Your task to perform on an android device: Open a new incognito tab in Chrome Image 0: 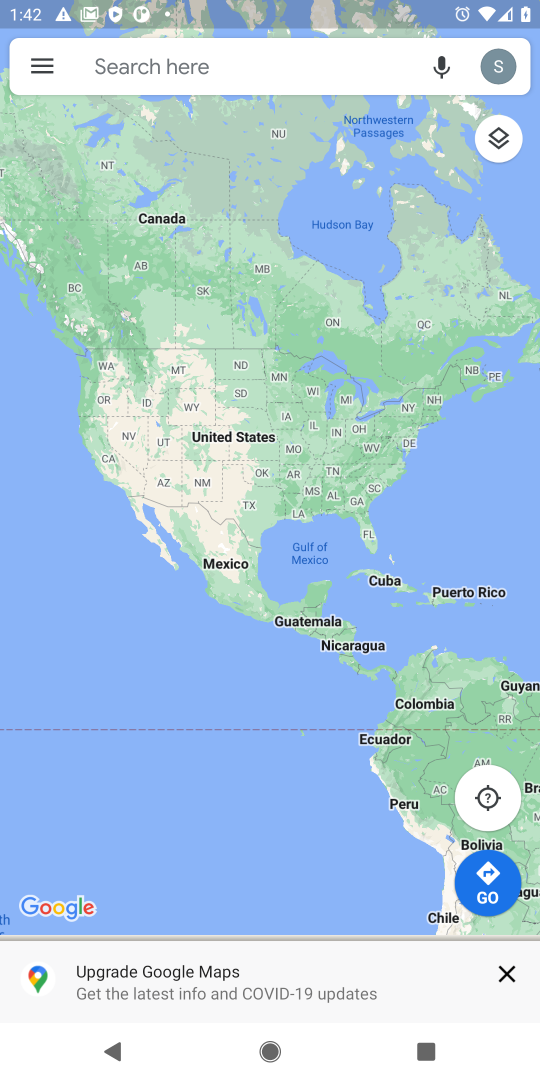
Step 0: press home button
Your task to perform on an android device: Open a new incognito tab in Chrome Image 1: 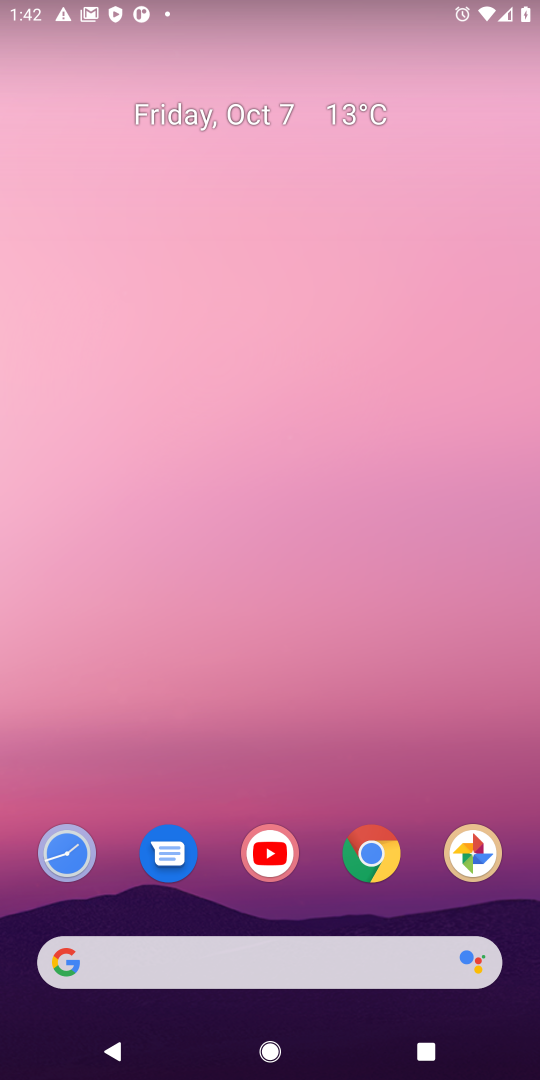
Step 1: click (393, 852)
Your task to perform on an android device: Open a new incognito tab in Chrome Image 2: 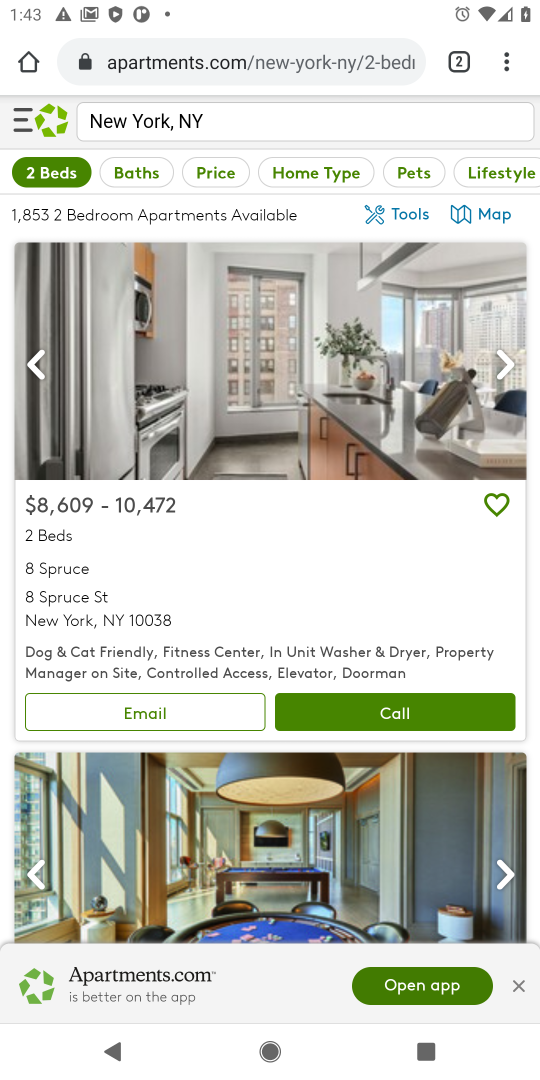
Step 2: click (449, 54)
Your task to perform on an android device: Open a new incognito tab in Chrome Image 3: 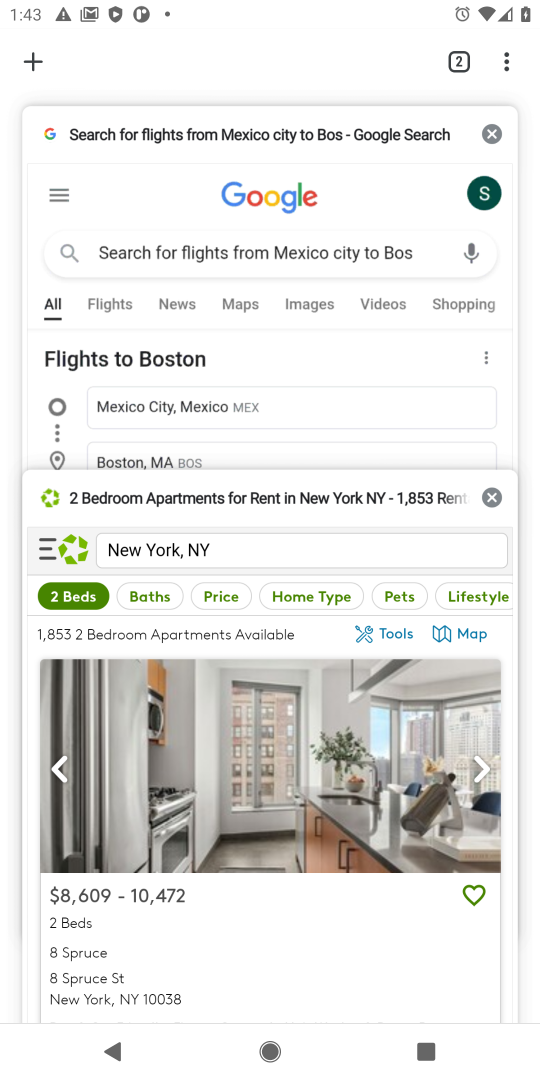
Step 3: click (502, 67)
Your task to perform on an android device: Open a new incognito tab in Chrome Image 4: 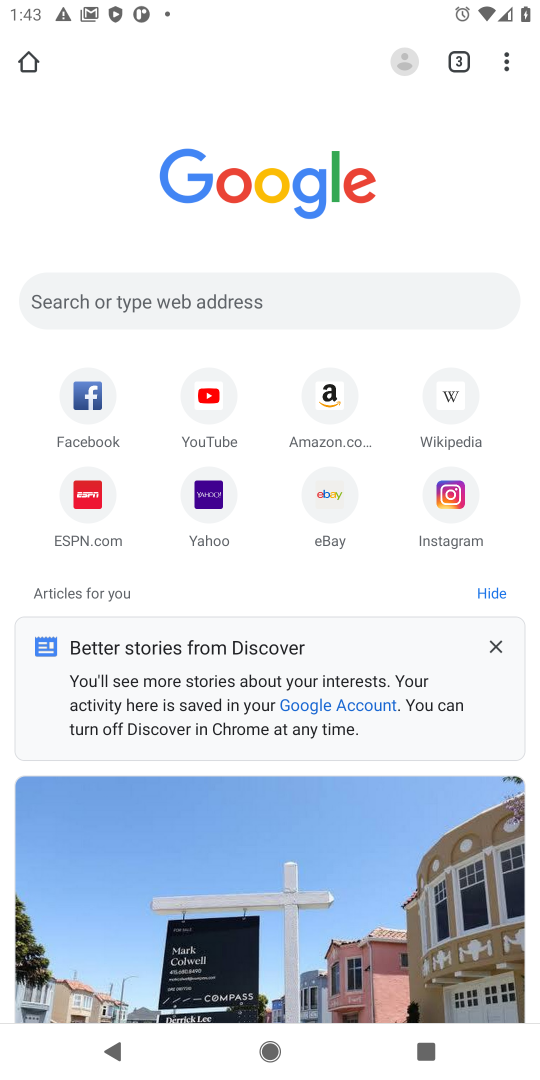
Step 4: click (498, 66)
Your task to perform on an android device: Open a new incognito tab in Chrome Image 5: 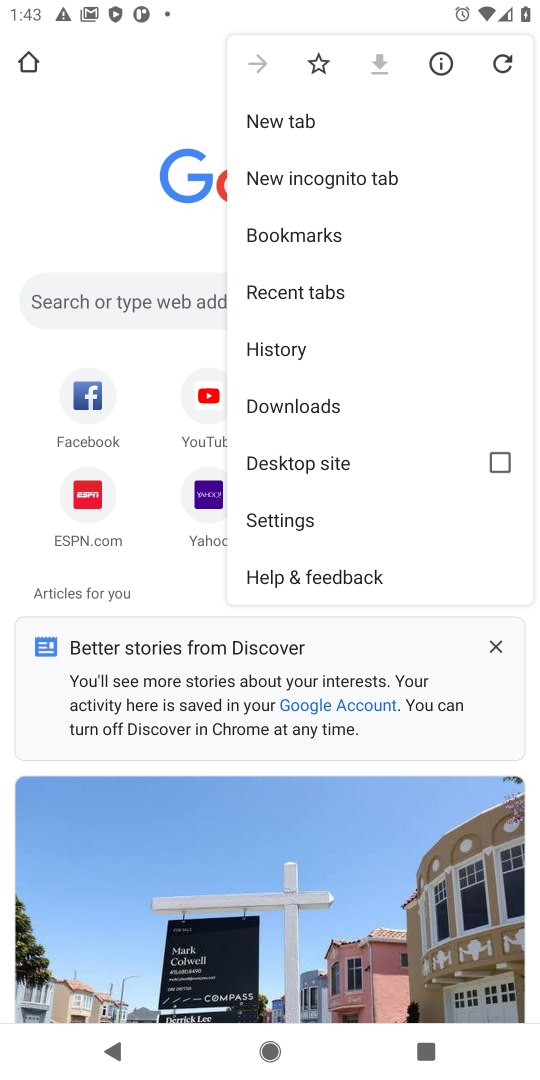
Step 5: click (304, 189)
Your task to perform on an android device: Open a new incognito tab in Chrome Image 6: 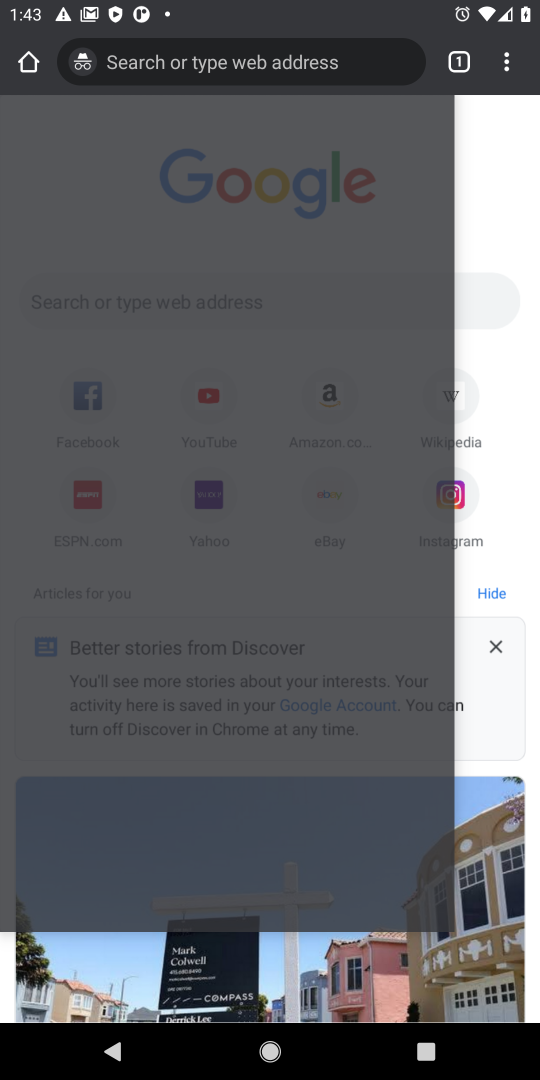
Step 6: task complete